Your task to perform on an android device: Open the web browser Image 0: 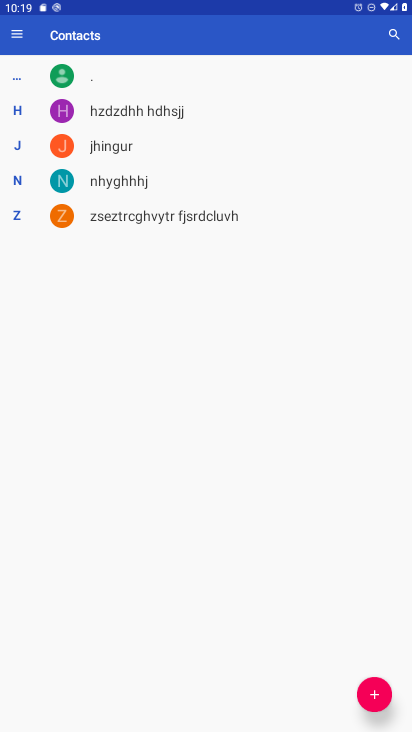
Step 0: press home button
Your task to perform on an android device: Open the web browser Image 1: 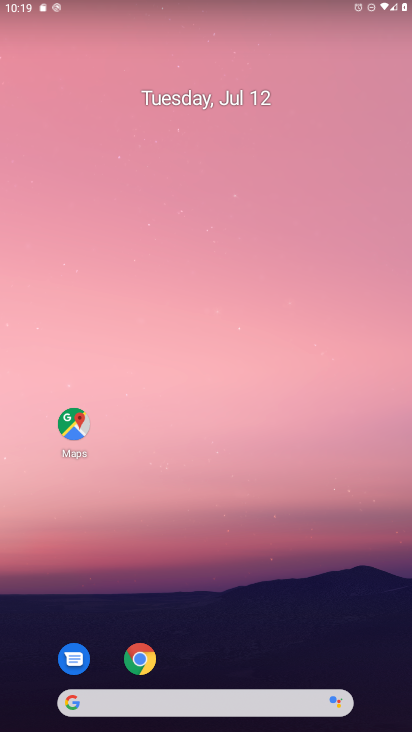
Step 1: click (142, 659)
Your task to perform on an android device: Open the web browser Image 2: 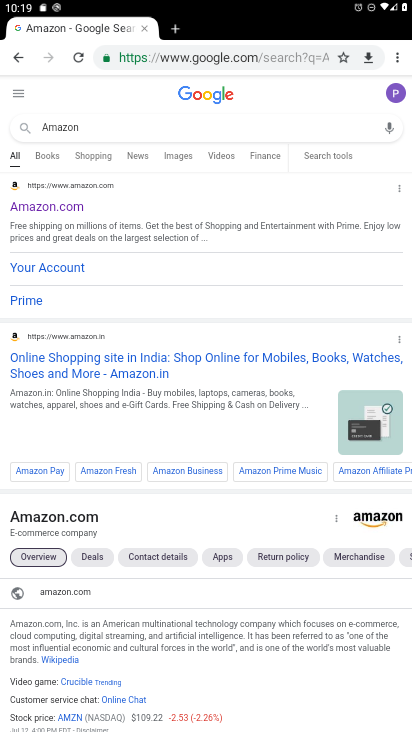
Step 2: task complete